Your task to perform on an android device: manage bookmarks in the chrome app Image 0: 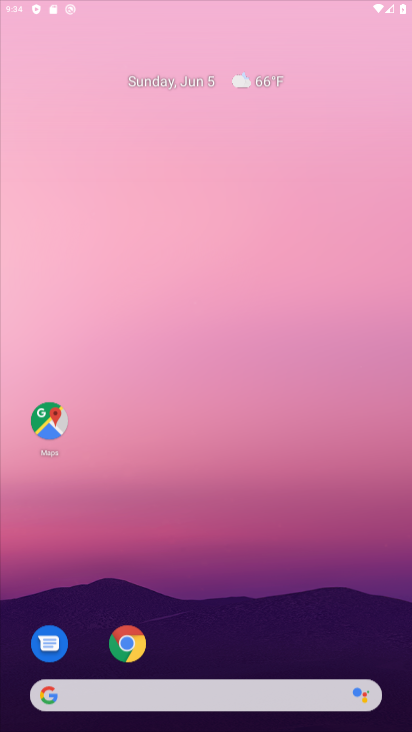
Step 0: click (243, 284)
Your task to perform on an android device: manage bookmarks in the chrome app Image 1: 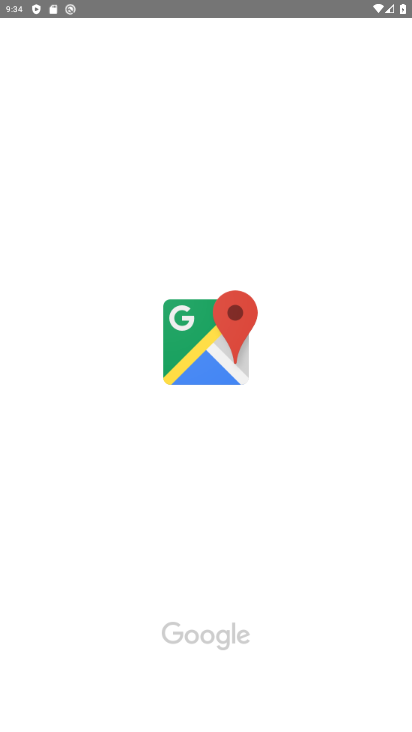
Step 1: drag from (205, 677) to (199, 394)
Your task to perform on an android device: manage bookmarks in the chrome app Image 2: 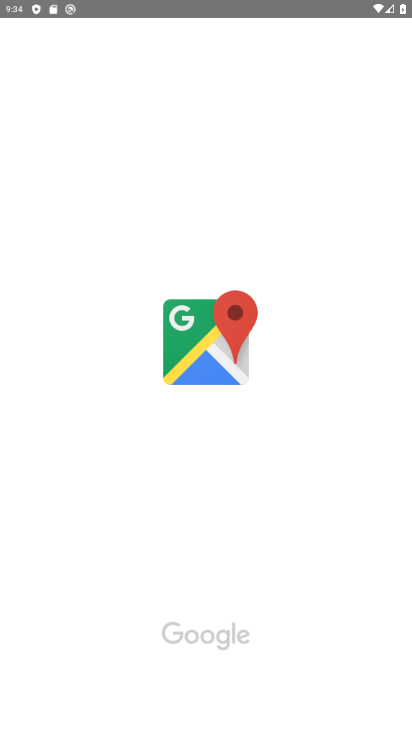
Step 2: press home button
Your task to perform on an android device: manage bookmarks in the chrome app Image 3: 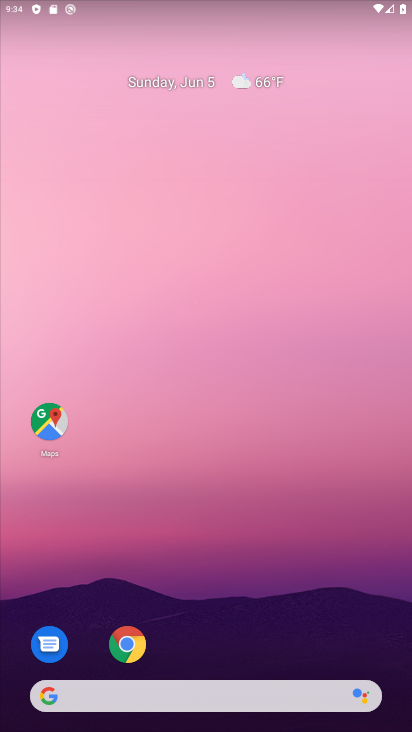
Step 3: click (131, 650)
Your task to perform on an android device: manage bookmarks in the chrome app Image 4: 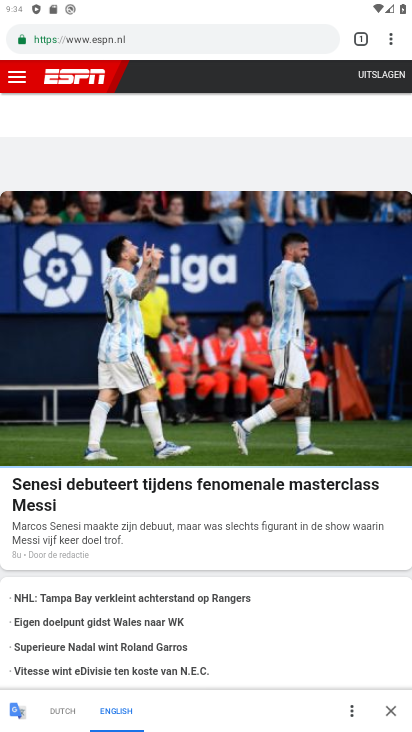
Step 4: click (394, 40)
Your task to perform on an android device: manage bookmarks in the chrome app Image 5: 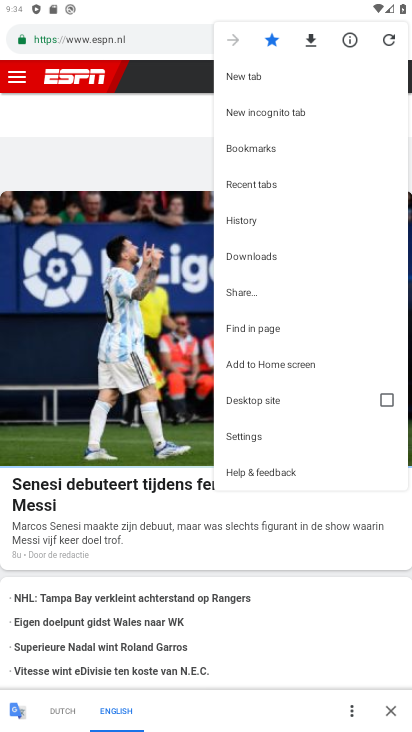
Step 5: click (262, 146)
Your task to perform on an android device: manage bookmarks in the chrome app Image 6: 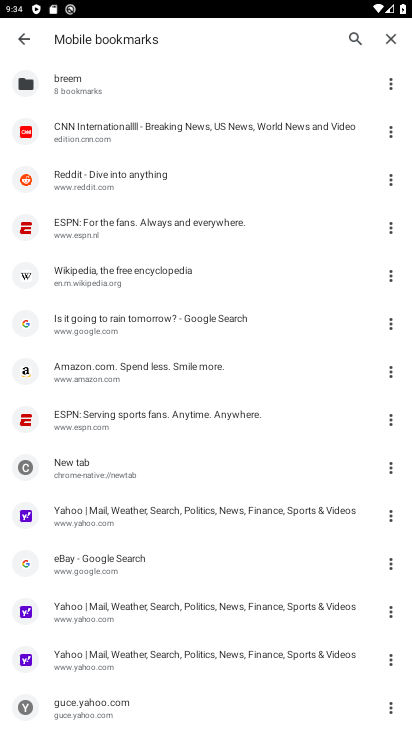
Step 6: click (390, 129)
Your task to perform on an android device: manage bookmarks in the chrome app Image 7: 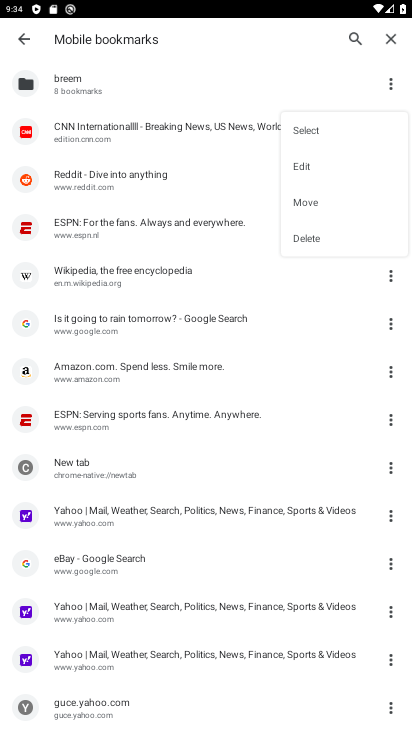
Step 7: click (311, 130)
Your task to perform on an android device: manage bookmarks in the chrome app Image 8: 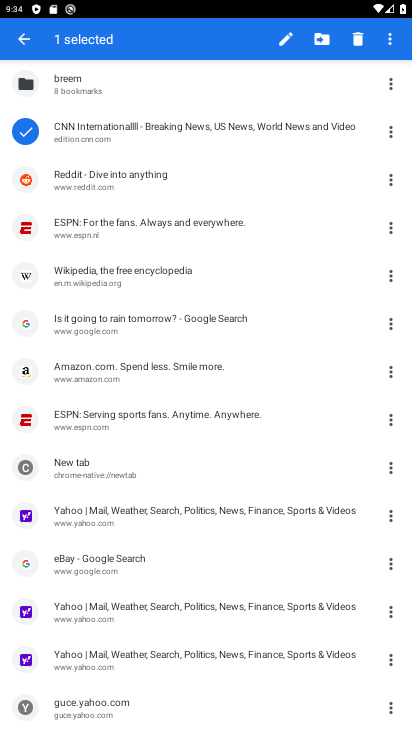
Step 8: click (104, 178)
Your task to perform on an android device: manage bookmarks in the chrome app Image 9: 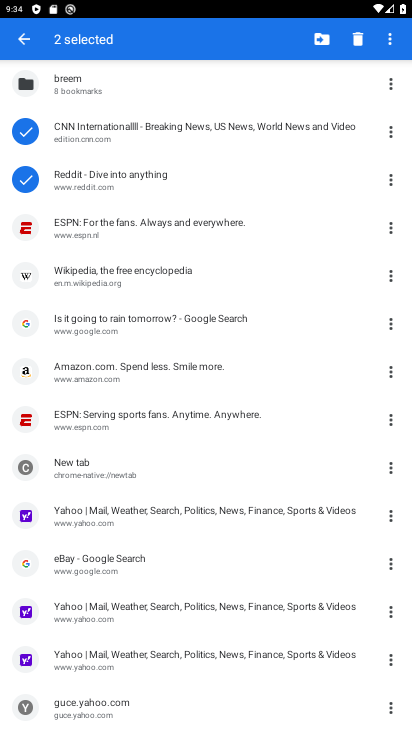
Step 9: click (123, 222)
Your task to perform on an android device: manage bookmarks in the chrome app Image 10: 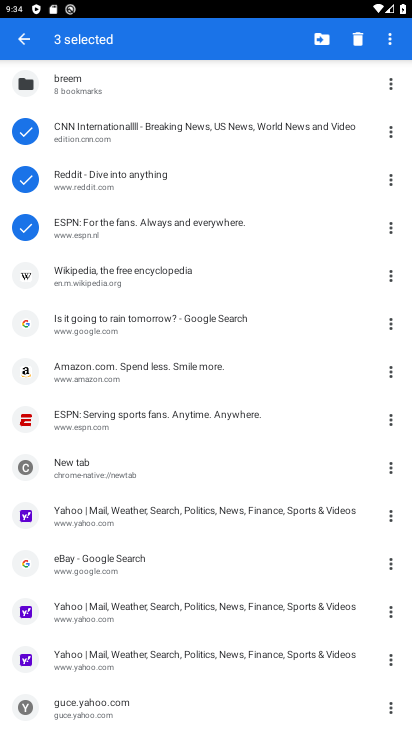
Step 10: click (106, 291)
Your task to perform on an android device: manage bookmarks in the chrome app Image 11: 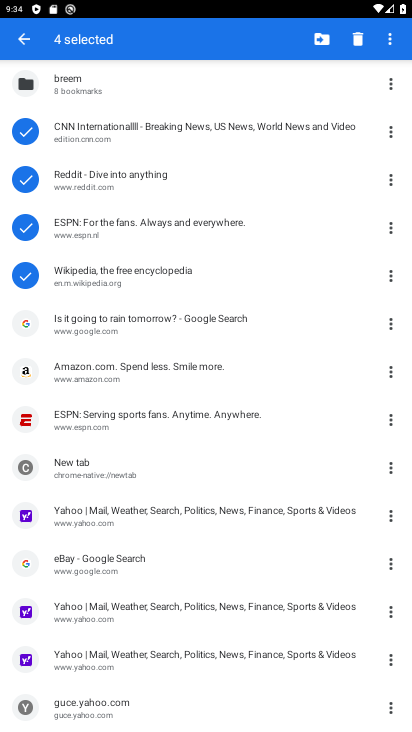
Step 11: click (113, 330)
Your task to perform on an android device: manage bookmarks in the chrome app Image 12: 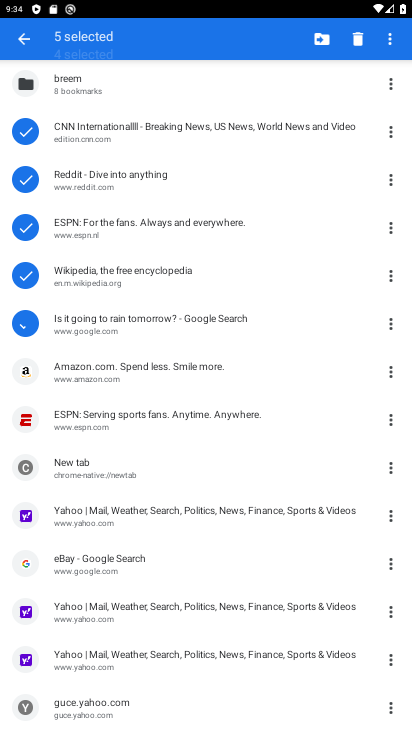
Step 12: click (107, 415)
Your task to perform on an android device: manage bookmarks in the chrome app Image 13: 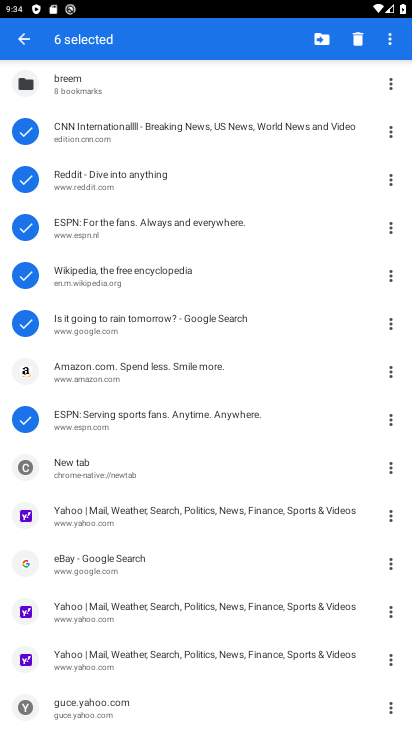
Step 13: click (96, 434)
Your task to perform on an android device: manage bookmarks in the chrome app Image 14: 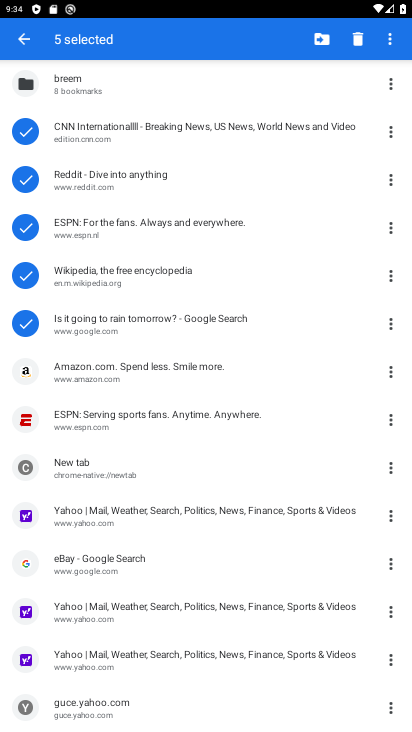
Step 14: click (81, 466)
Your task to perform on an android device: manage bookmarks in the chrome app Image 15: 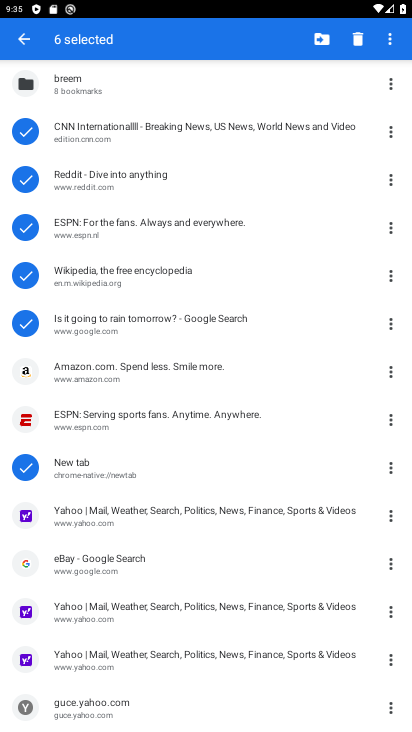
Step 15: click (77, 372)
Your task to perform on an android device: manage bookmarks in the chrome app Image 16: 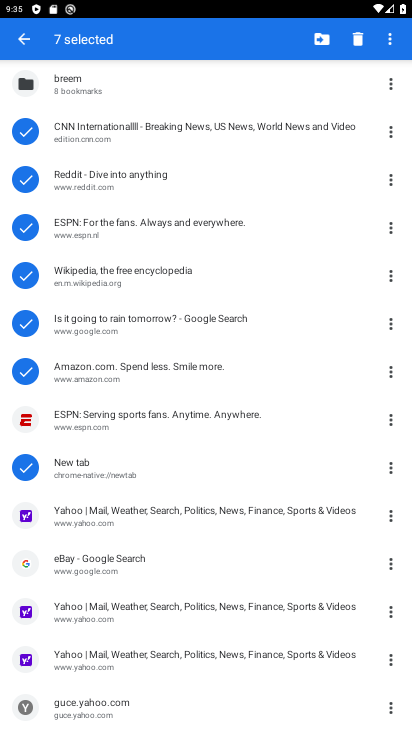
Step 16: click (70, 543)
Your task to perform on an android device: manage bookmarks in the chrome app Image 17: 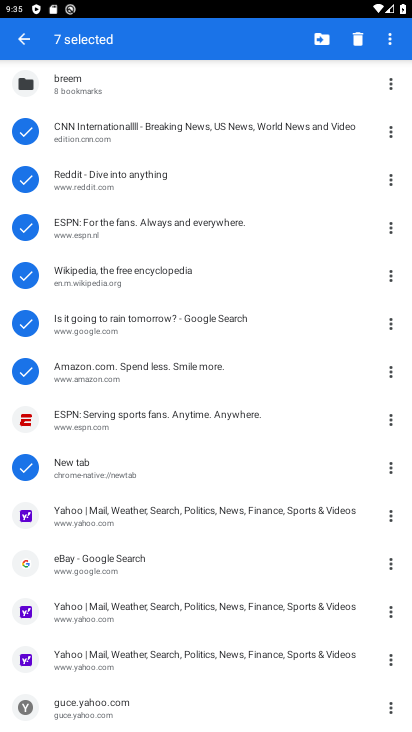
Step 17: click (67, 577)
Your task to perform on an android device: manage bookmarks in the chrome app Image 18: 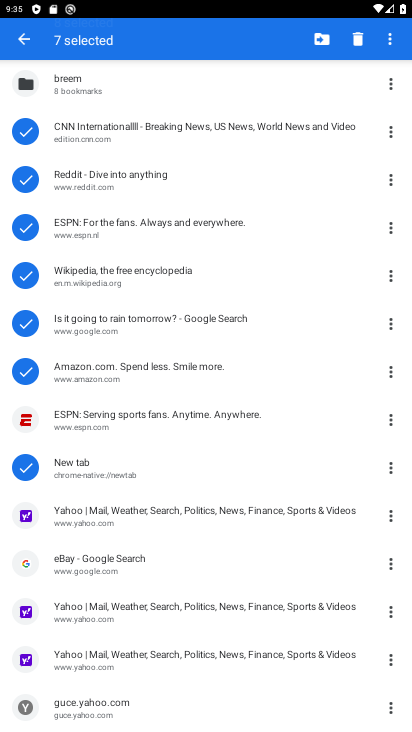
Step 18: click (72, 644)
Your task to perform on an android device: manage bookmarks in the chrome app Image 19: 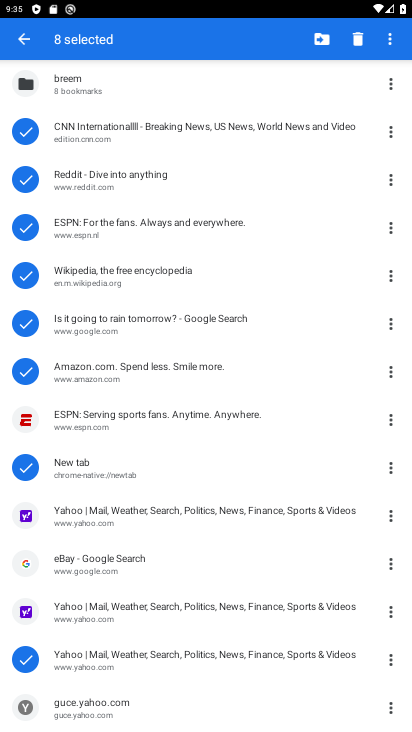
Step 19: click (66, 706)
Your task to perform on an android device: manage bookmarks in the chrome app Image 20: 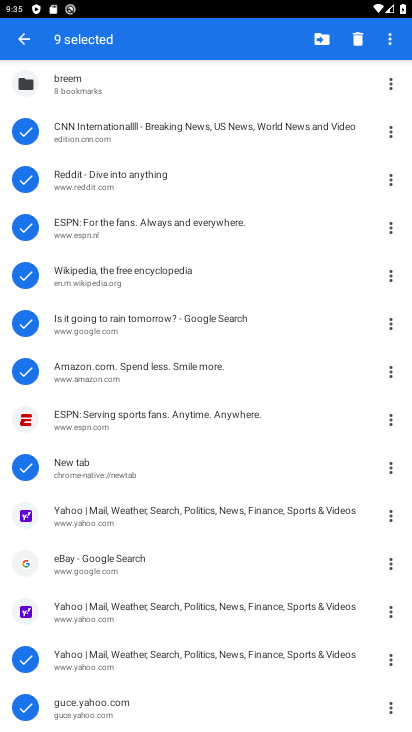
Step 20: click (325, 32)
Your task to perform on an android device: manage bookmarks in the chrome app Image 21: 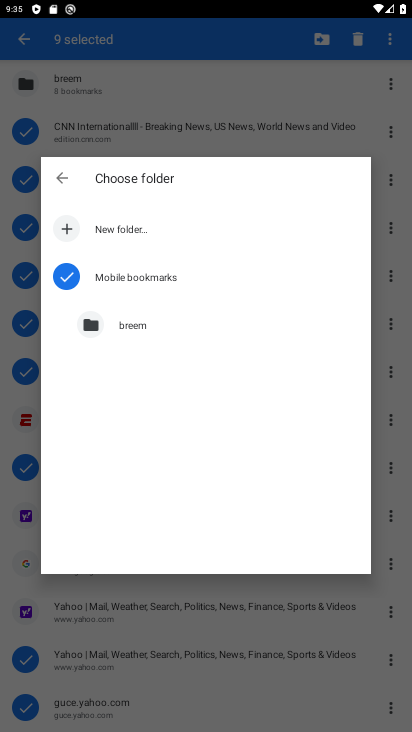
Step 21: click (159, 331)
Your task to perform on an android device: manage bookmarks in the chrome app Image 22: 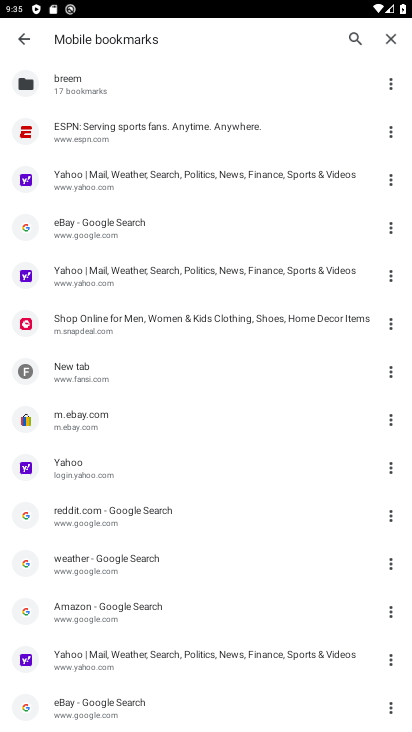
Step 22: task complete